Your task to perform on an android device: Open accessibility settings Image 0: 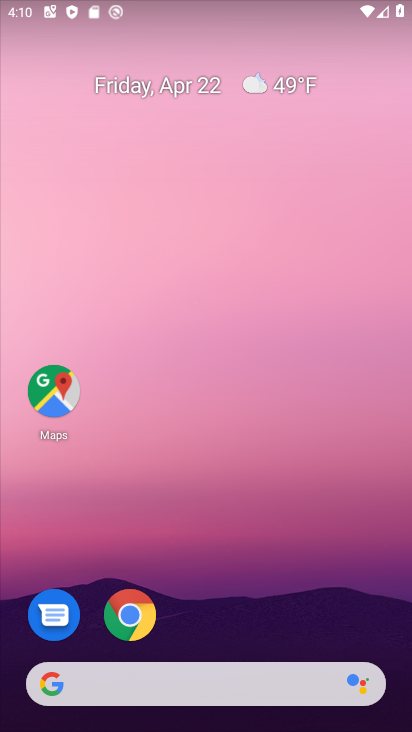
Step 0: drag from (215, 719) to (217, 74)
Your task to perform on an android device: Open accessibility settings Image 1: 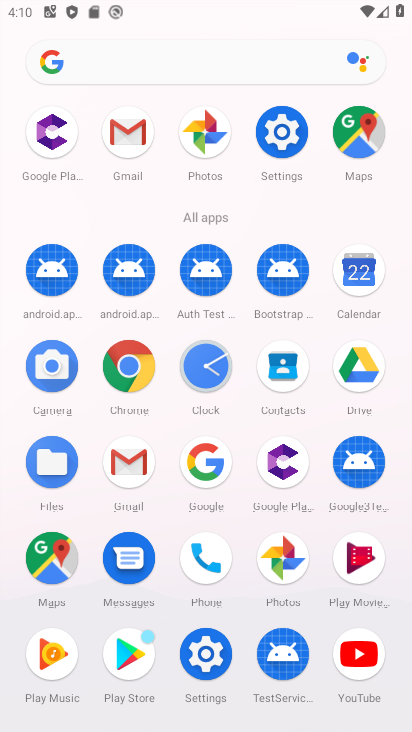
Step 1: click (279, 131)
Your task to perform on an android device: Open accessibility settings Image 2: 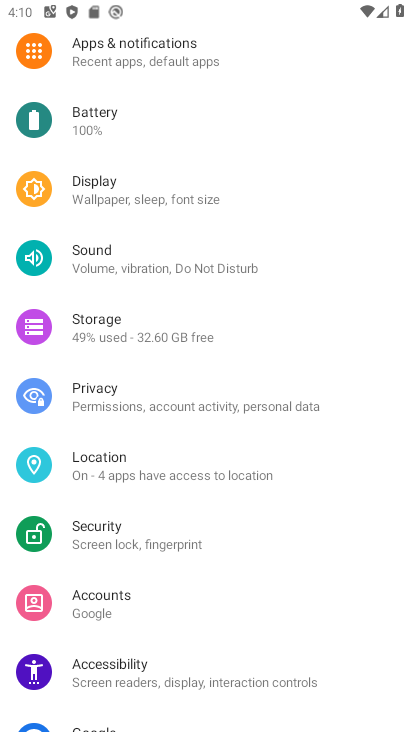
Step 2: click (117, 667)
Your task to perform on an android device: Open accessibility settings Image 3: 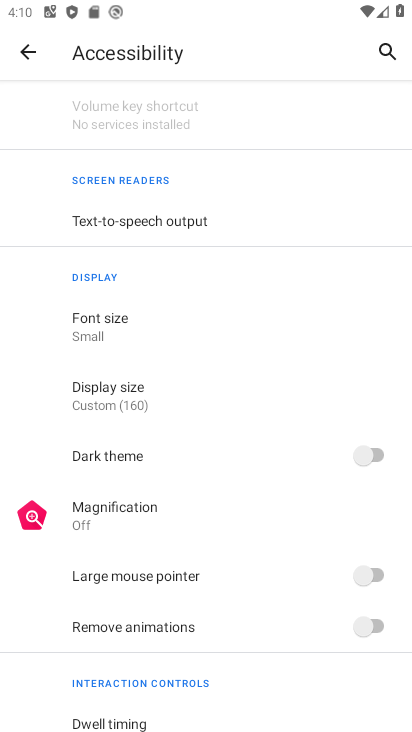
Step 3: task complete